Your task to perform on an android device: set the timer Image 0: 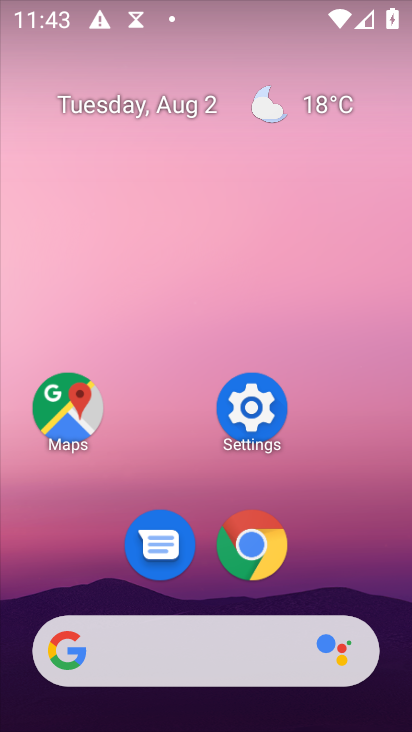
Step 0: press home button
Your task to perform on an android device: set the timer Image 1: 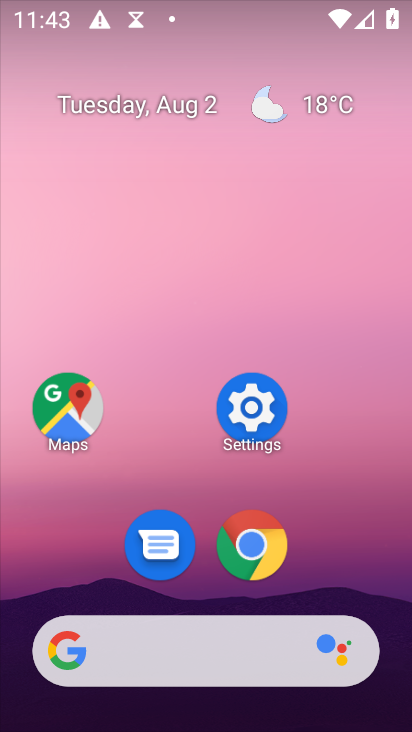
Step 1: drag from (167, 651) to (301, 5)
Your task to perform on an android device: set the timer Image 2: 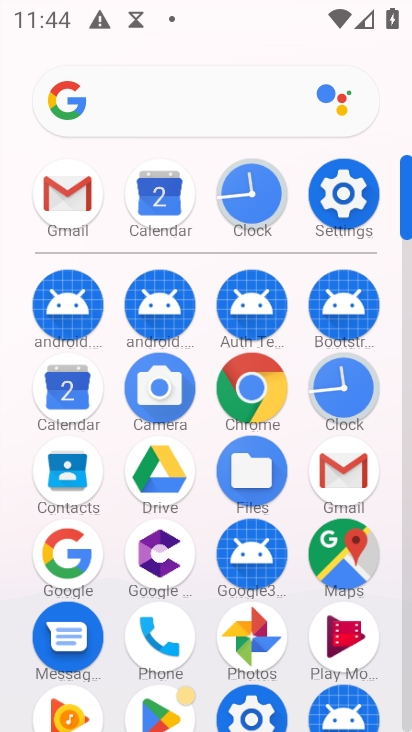
Step 2: click (344, 390)
Your task to perform on an android device: set the timer Image 3: 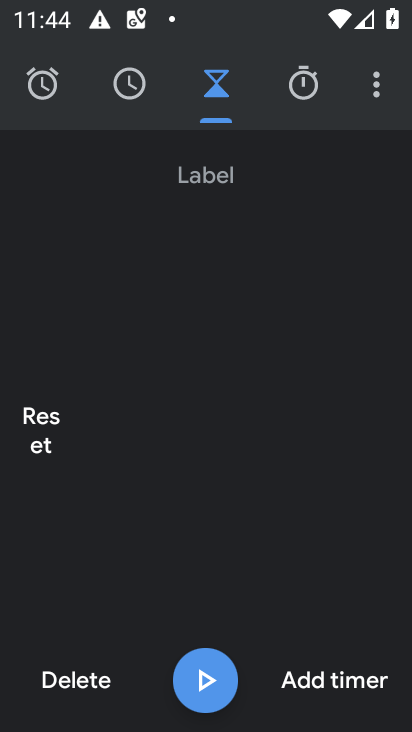
Step 3: click (219, 107)
Your task to perform on an android device: set the timer Image 4: 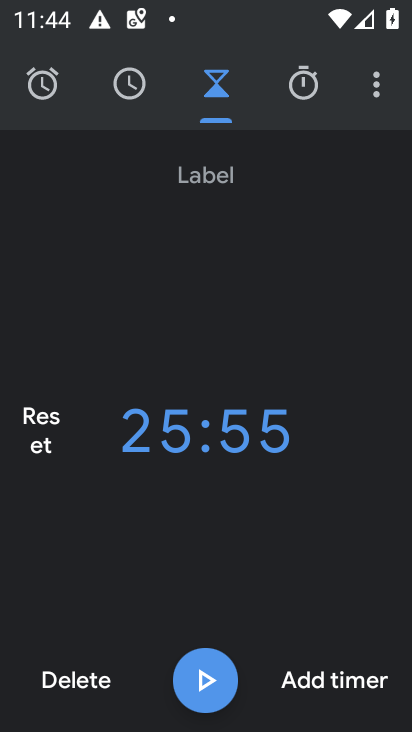
Step 4: click (88, 681)
Your task to perform on an android device: set the timer Image 5: 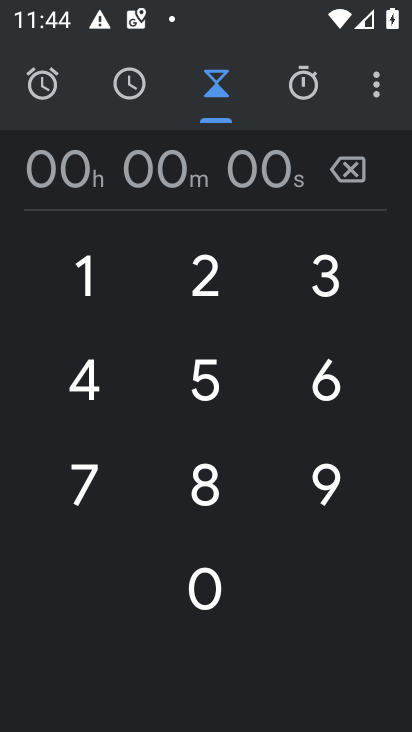
Step 5: click (209, 486)
Your task to perform on an android device: set the timer Image 6: 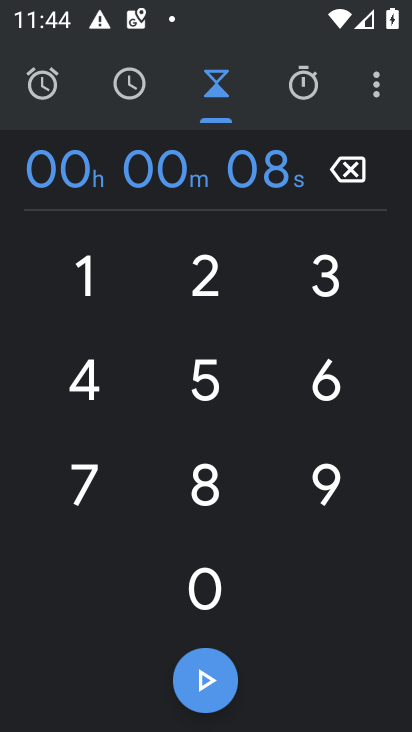
Step 6: click (84, 369)
Your task to perform on an android device: set the timer Image 7: 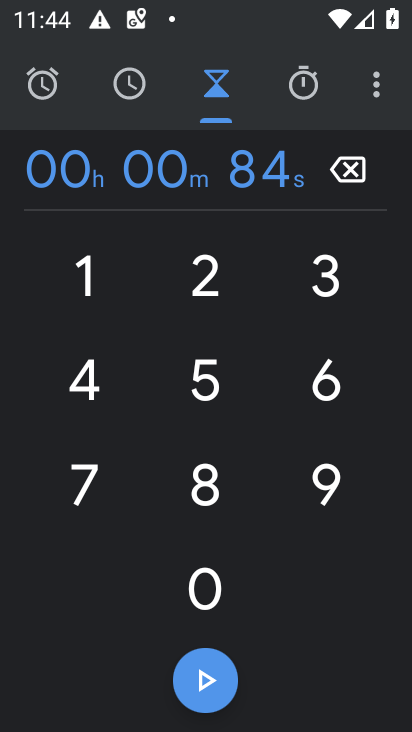
Step 7: click (207, 682)
Your task to perform on an android device: set the timer Image 8: 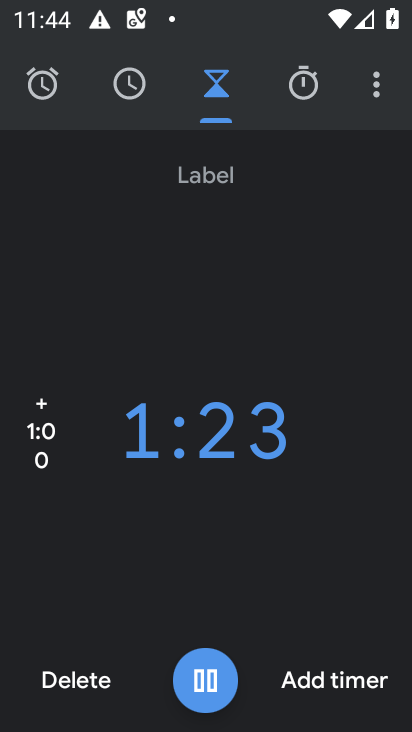
Step 8: click (207, 682)
Your task to perform on an android device: set the timer Image 9: 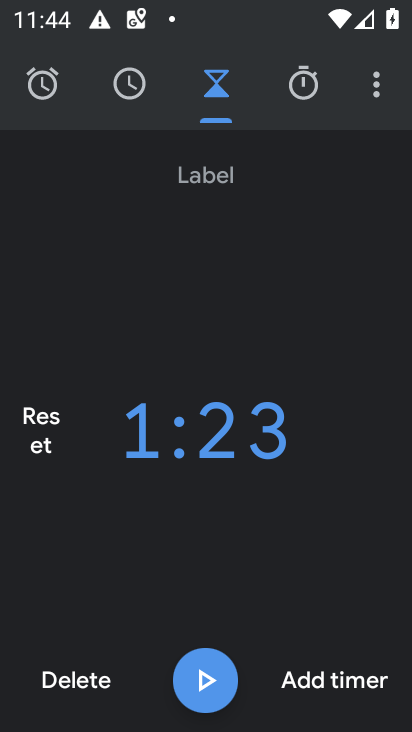
Step 9: task complete